Your task to perform on an android device: Go to wifi settings Image 0: 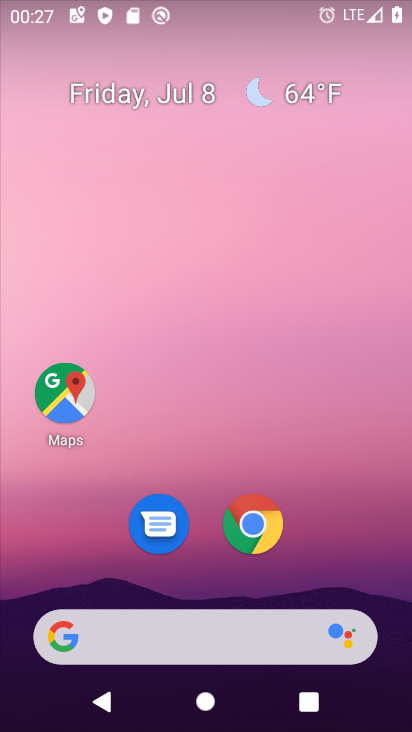
Step 0: drag from (334, 530) to (312, 7)
Your task to perform on an android device: Go to wifi settings Image 1: 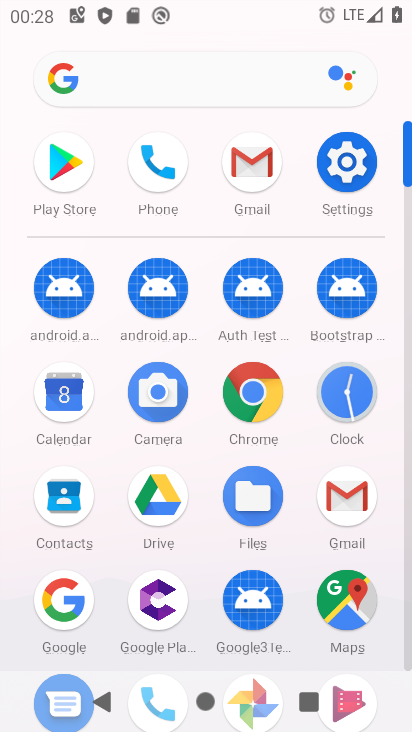
Step 1: click (347, 172)
Your task to perform on an android device: Go to wifi settings Image 2: 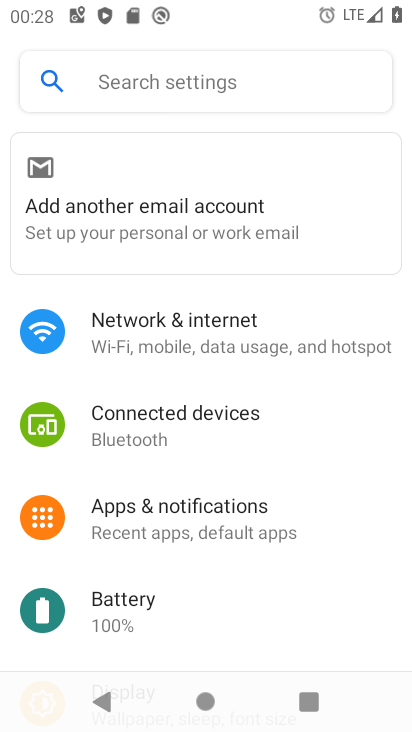
Step 2: click (206, 324)
Your task to perform on an android device: Go to wifi settings Image 3: 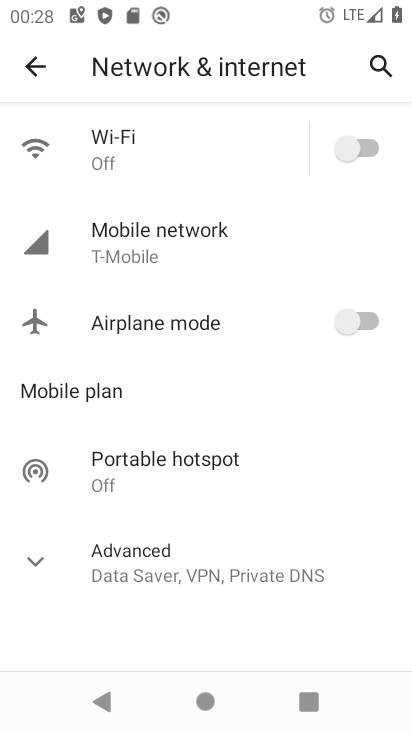
Step 3: click (155, 149)
Your task to perform on an android device: Go to wifi settings Image 4: 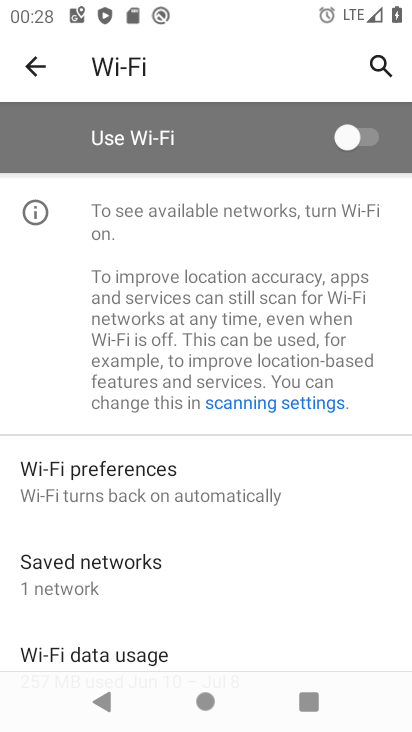
Step 4: task complete